Your task to perform on an android device: What's the weather going to be tomorrow? Image 0: 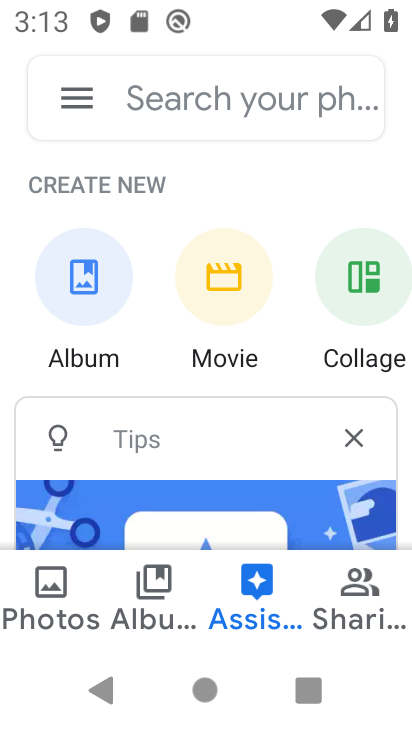
Step 0: press home button
Your task to perform on an android device: What's the weather going to be tomorrow? Image 1: 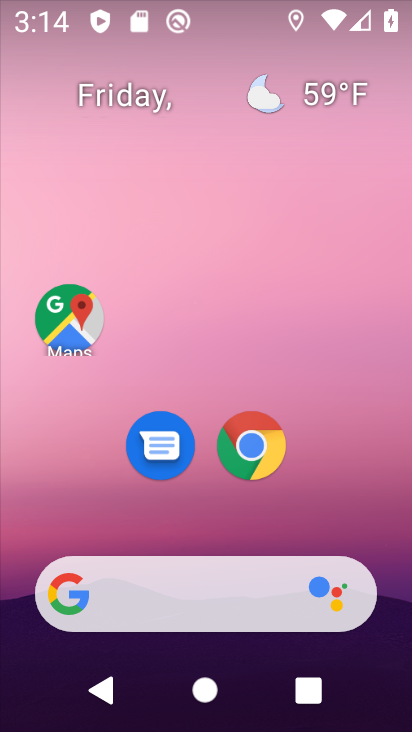
Step 1: click (321, 84)
Your task to perform on an android device: What's the weather going to be tomorrow? Image 2: 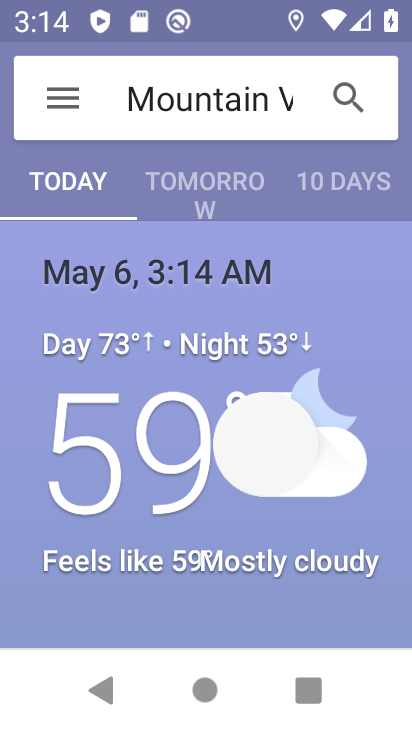
Step 2: click (200, 177)
Your task to perform on an android device: What's the weather going to be tomorrow? Image 3: 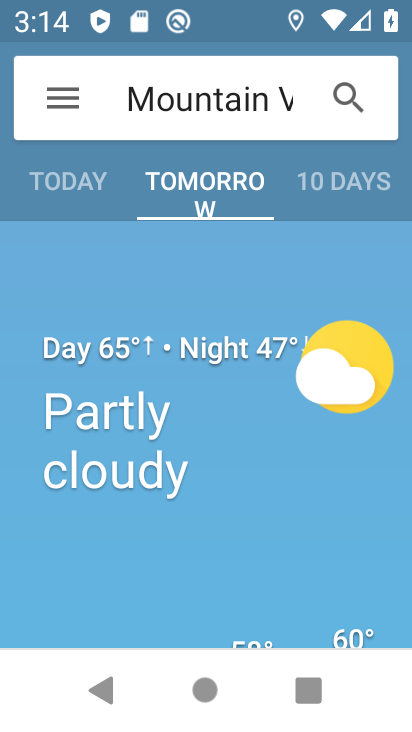
Step 3: task complete